Your task to perform on an android device: Go to wifi settings Image 0: 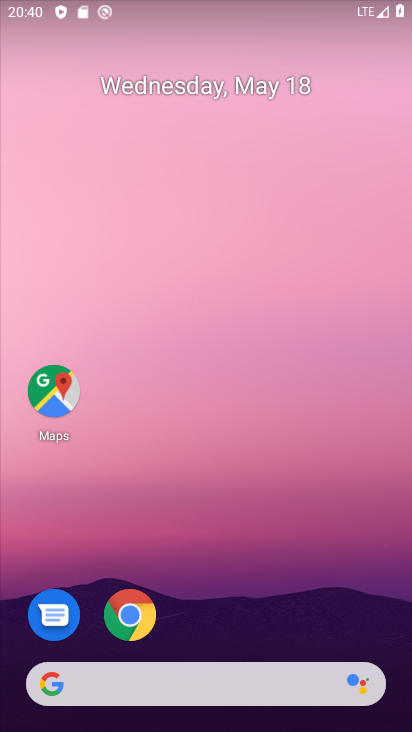
Step 0: drag from (201, 632) to (221, 118)
Your task to perform on an android device: Go to wifi settings Image 1: 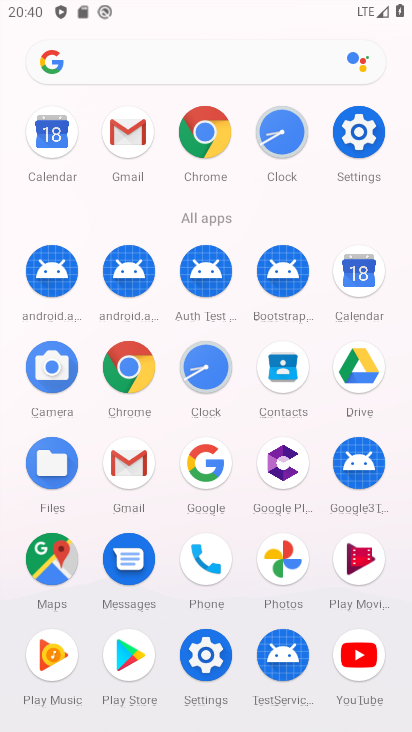
Step 1: click (358, 128)
Your task to perform on an android device: Go to wifi settings Image 2: 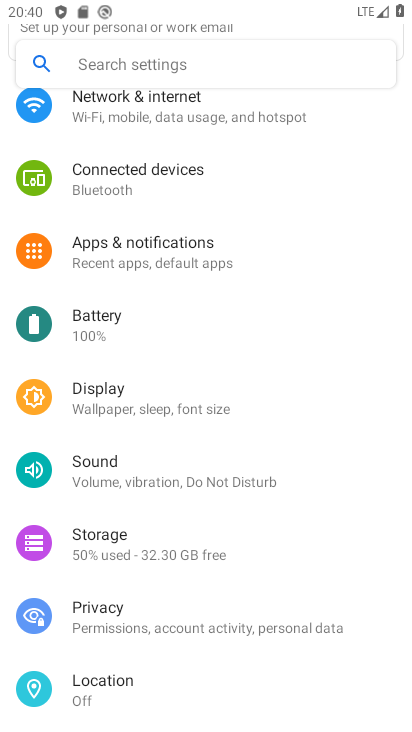
Step 2: click (164, 111)
Your task to perform on an android device: Go to wifi settings Image 3: 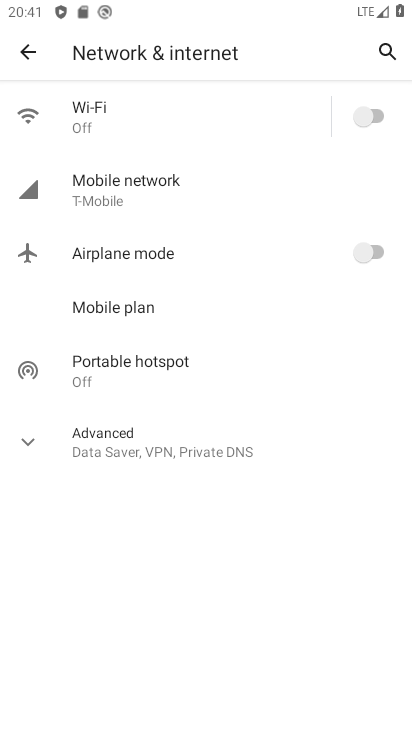
Step 3: click (164, 111)
Your task to perform on an android device: Go to wifi settings Image 4: 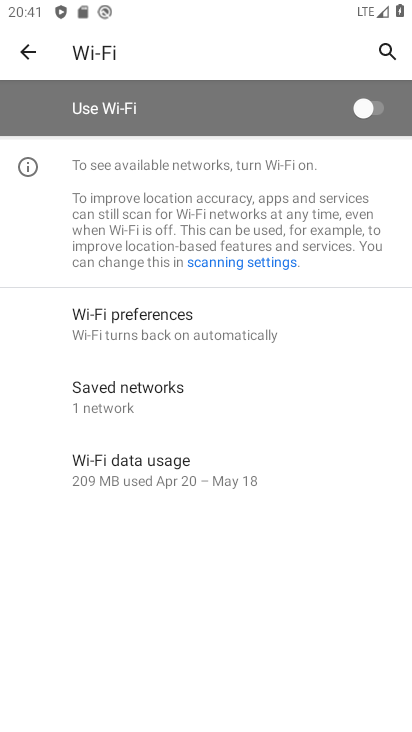
Step 4: task complete